Your task to perform on an android device: Open notification settings Image 0: 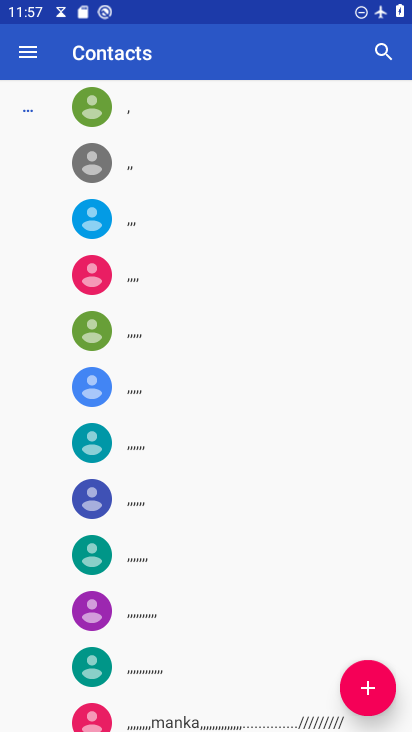
Step 0: press home button
Your task to perform on an android device: Open notification settings Image 1: 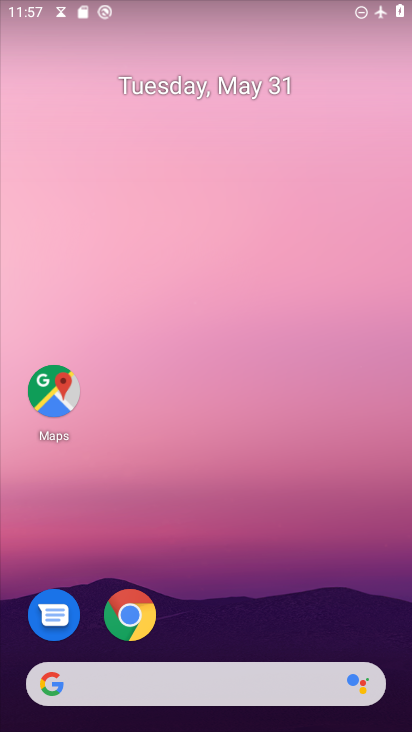
Step 1: drag from (274, 674) to (295, 133)
Your task to perform on an android device: Open notification settings Image 2: 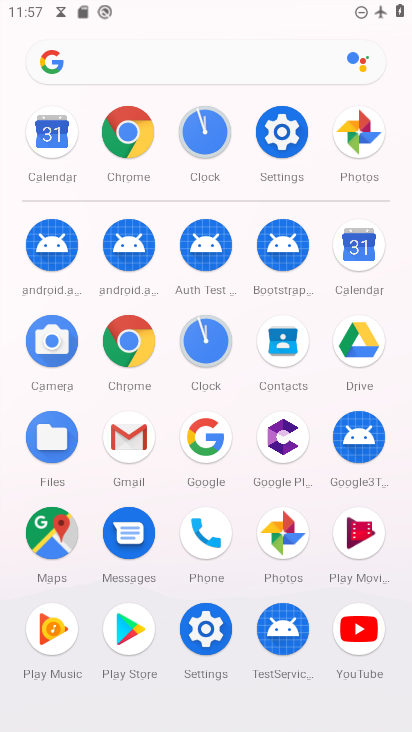
Step 2: click (288, 142)
Your task to perform on an android device: Open notification settings Image 3: 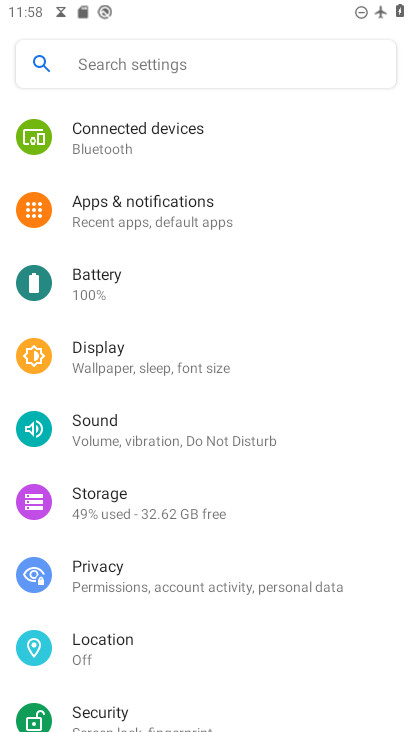
Step 3: click (207, 190)
Your task to perform on an android device: Open notification settings Image 4: 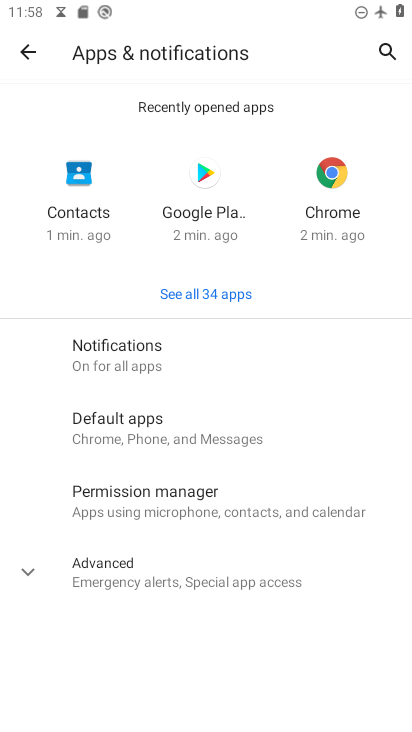
Step 4: click (169, 352)
Your task to perform on an android device: Open notification settings Image 5: 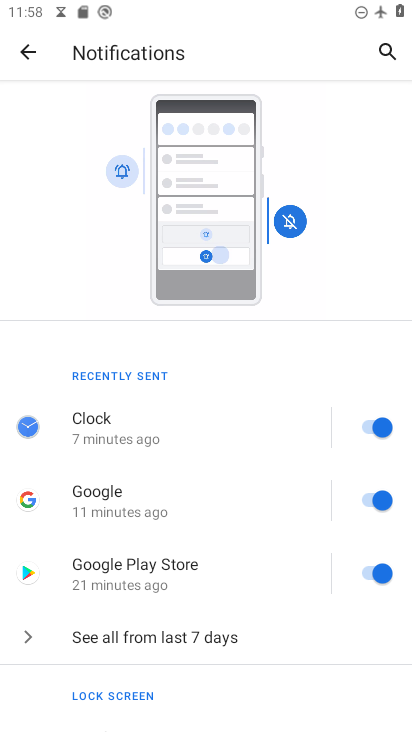
Step 5: drag from (202, 686) to (192, 233)
Your task to perform on an android device: Open notification settings Image 6: 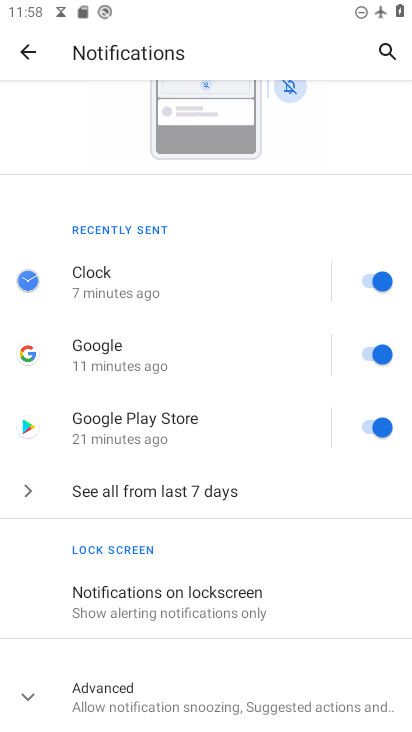
Step 6: click (372, 351)
Your task to perform on an android device: Open notification settings Image 7: 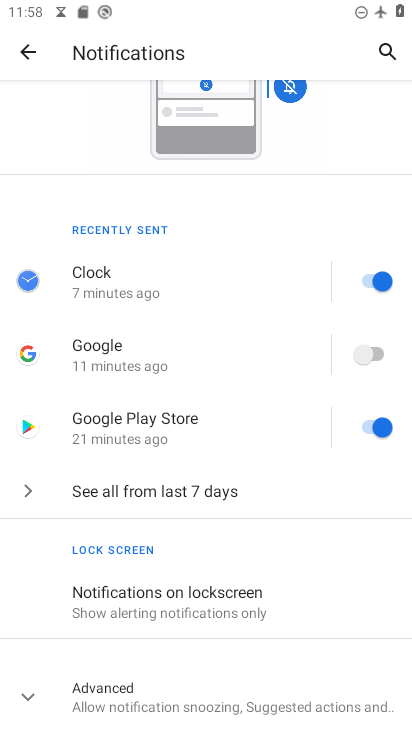
Step 7: task complete